Your task to perform on an android device: show emergency info Image 0: 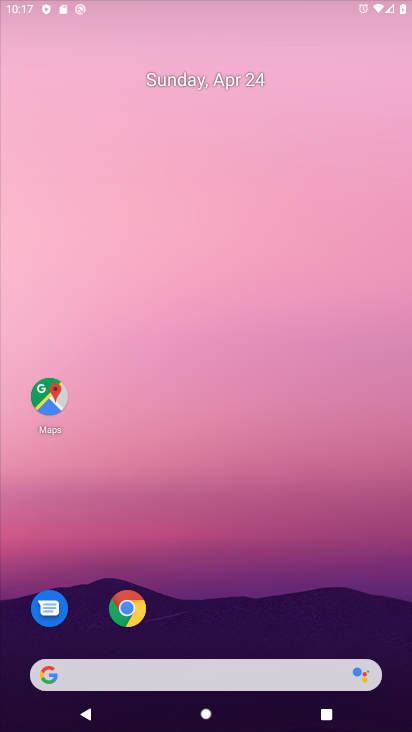
Step 0: drag from (206, 520) to (128, 21)
Your task to perform on an android device: show emergency info Image 1: 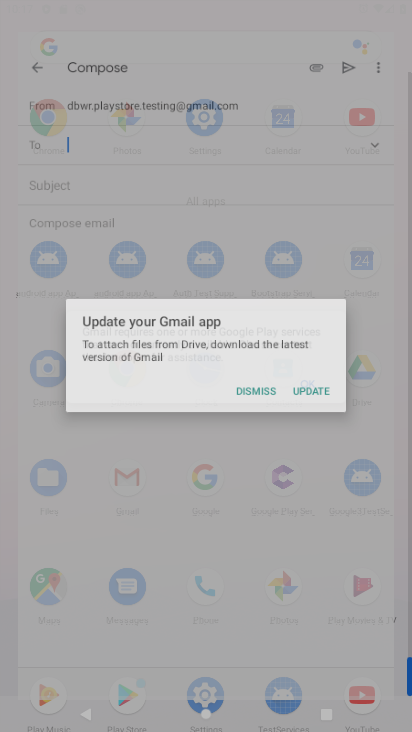
Step 1: drag from (12, 527) to (3, 373)
Your task to perform on an android device: show emergency info Image 2: 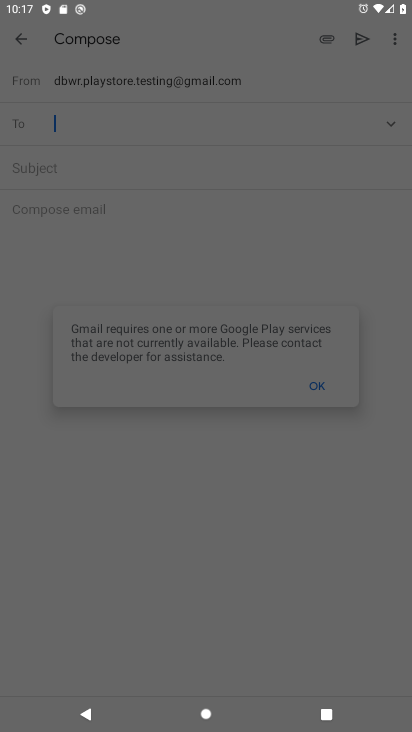
Step 2: press back button
Your task to perform on an android device: show emergency info Image 3: 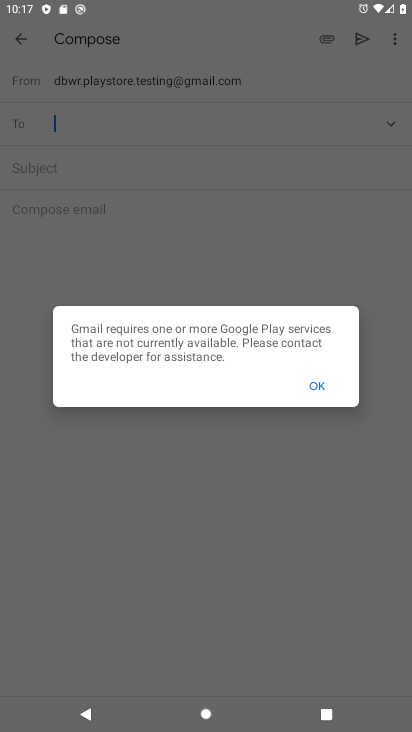
Step 3: press home button
Your task to perform on an android device: show emergency info Image 4: 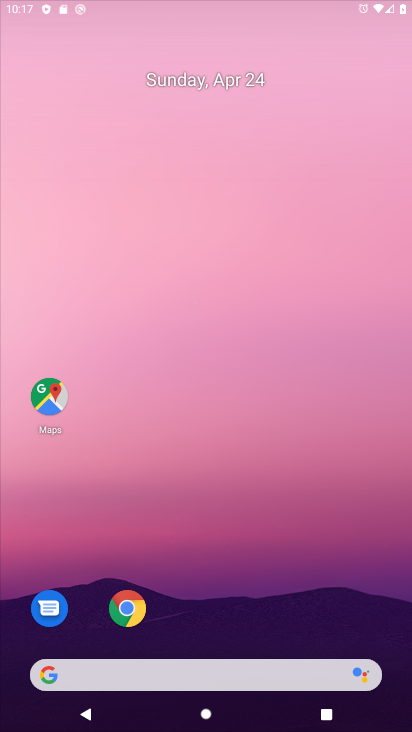
Step 4: drag from (223, 538) to (159, 19)
Your task to perform on an android device: show emergency info Image 5: 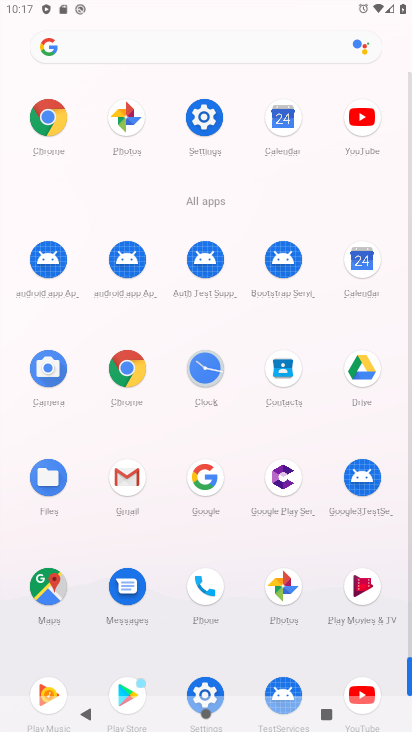
Step 5: drag from (6, 537) to (6, 210)
Your task to perform on an android device: show emergency info Image 6: 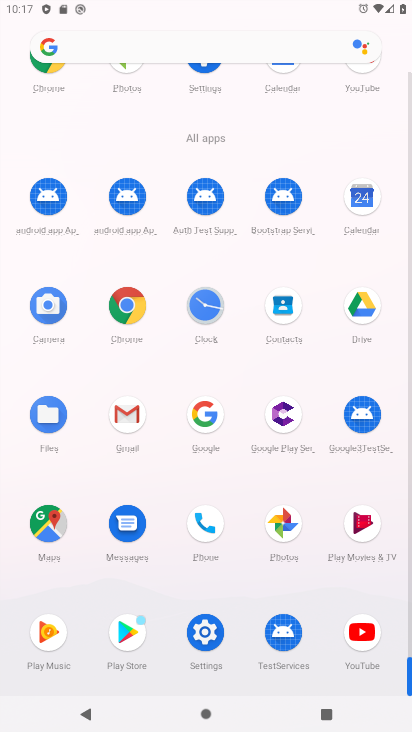
Step 6: click (199, 630)
Your task to perform on an android device: show emergency info Image 7: 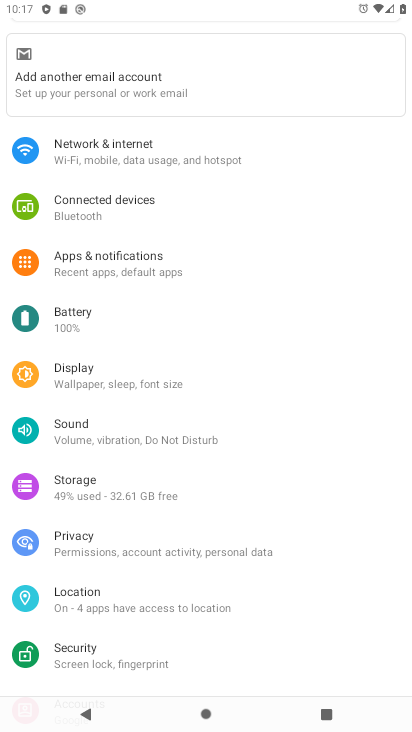
Step 7: drag from (271, 463) to (289, 91)
Your task to perform on an android device: show emergency info Image 8: 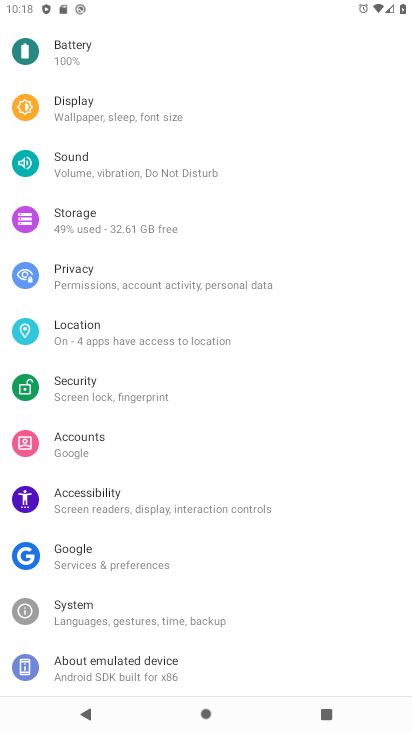
Step 8: drag from (254, 243) to (258, 494)
Your task to perform on an android device: show emergency info Image 9: 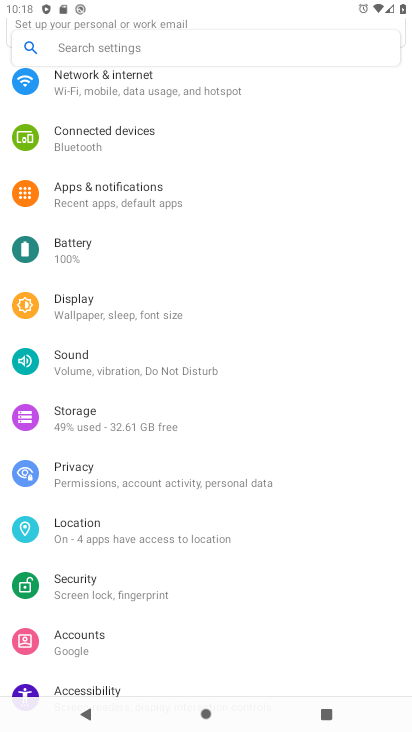
Step 9: drag from (238, 214) to (253, 551)
Your task to perform on an android device: show emergency info Image 10: 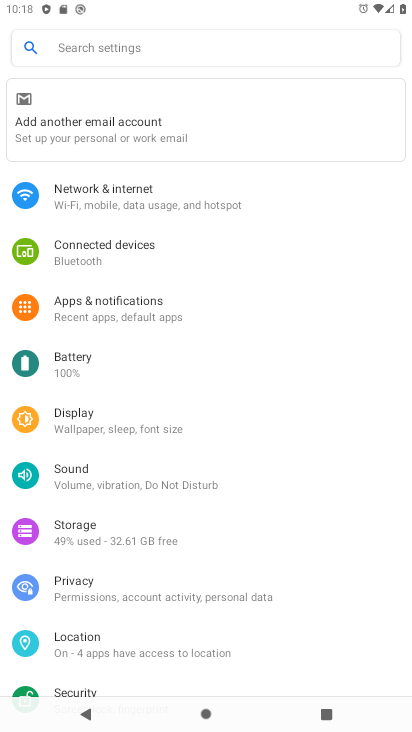
Step 10: drag from (263, 514) to (260, 212)
Your task to perform on an android device: show emergency info Image 11: 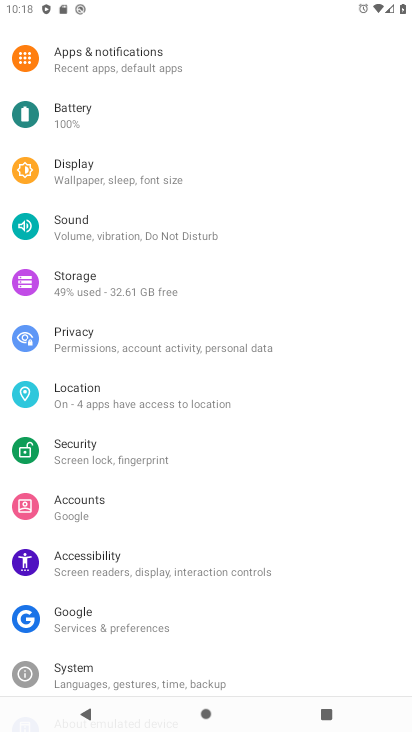
Step 11: drag from (230, 424) to (203, 101)
Your task to perform on an android device: show emergency info Image 12: 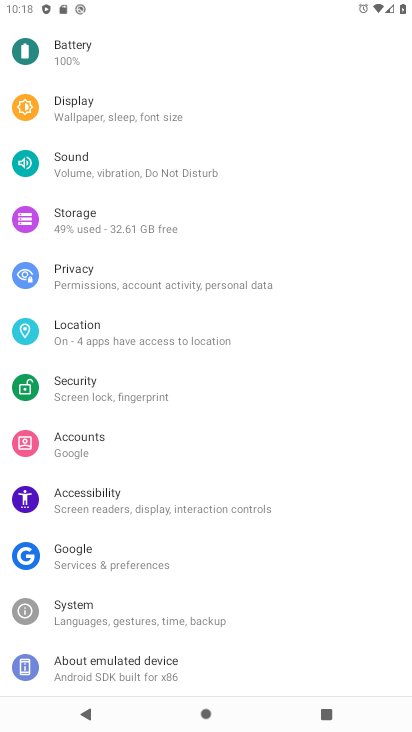
Step 12: drag from (218, 559) to (221, 379)
Your task to perform on an android device: show emergency info Image 13: 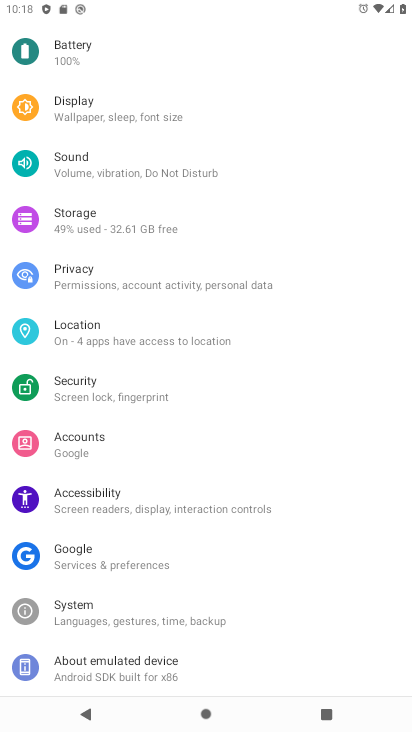
Step 13: drag from (200, 224) to (228, 493)
Your task to perform on an android device: show emergency info Image 14: 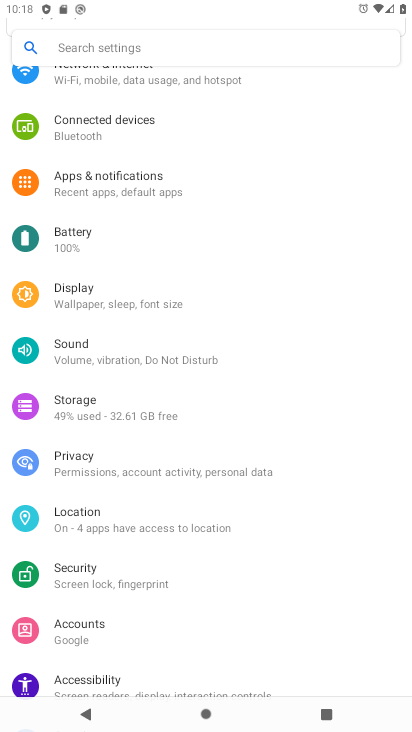
Step 14: drag from (151, 390) to (176, 259)
Your task to perform on an android device: show emergency info Image 15: 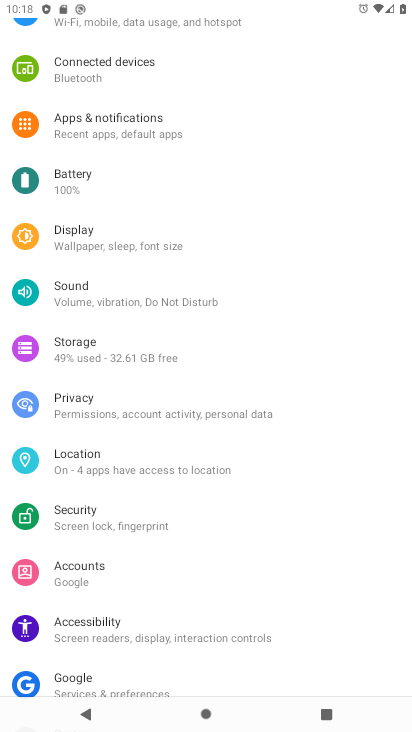
Step 15: drag from (124, 637) to (196, 352)
Your task to perform on an android device: show emergency info Image 16: 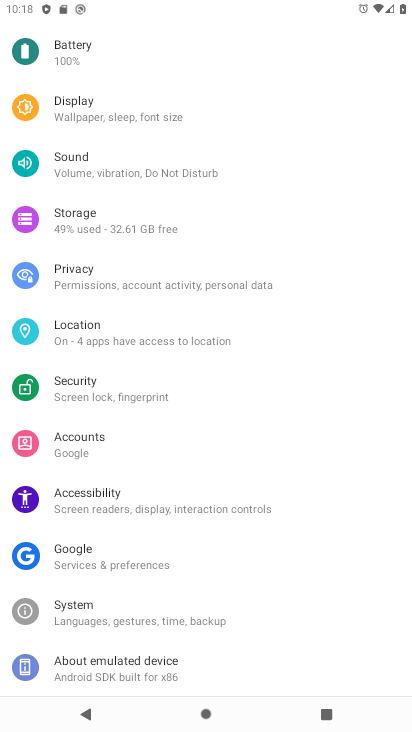
Step 16: click (140, 660)
Your task to perform on an android device: show emergency info Image 17: 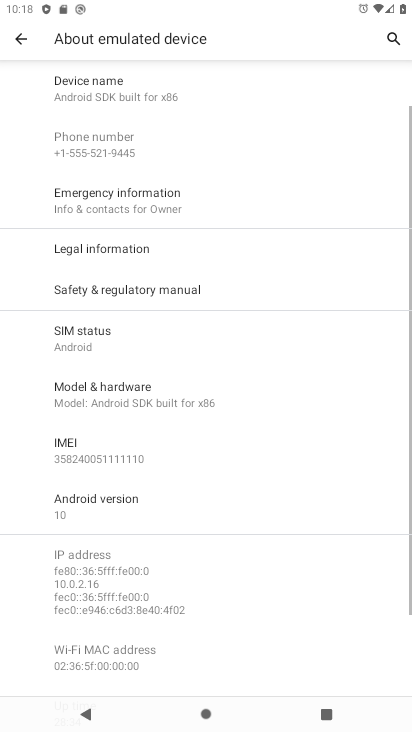
Step 17: click (134, 208)
Your task to perform on an android device: show emergency info Image 18: 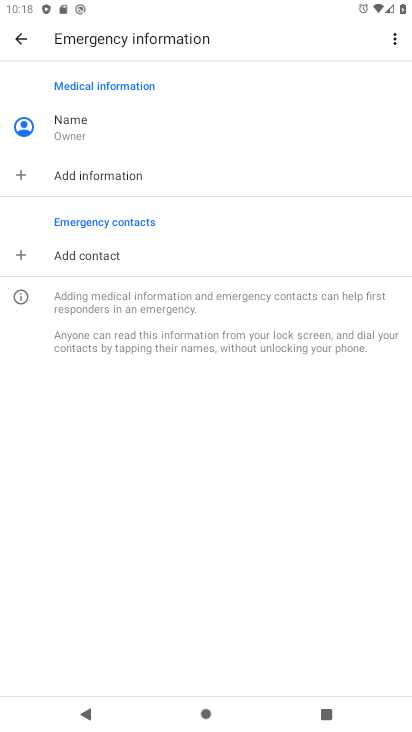
Step 18: task complete